Your task to perform on an android device: toggle priority inbox in the gmail app Image 0: 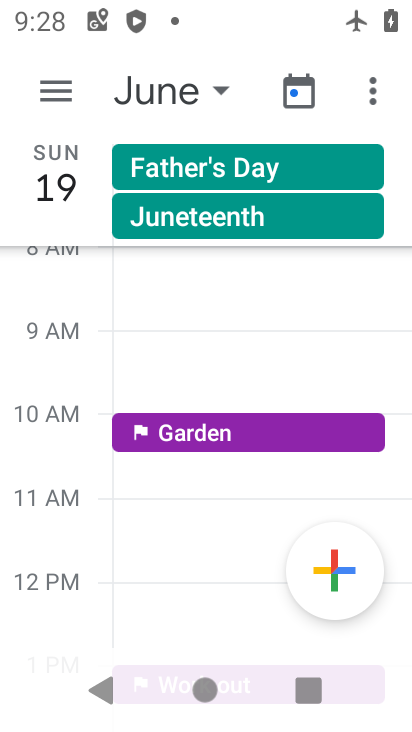
Step 0: press home button
Your task to perform on an android device: toggle priority inbox in the gmail app Image 1: 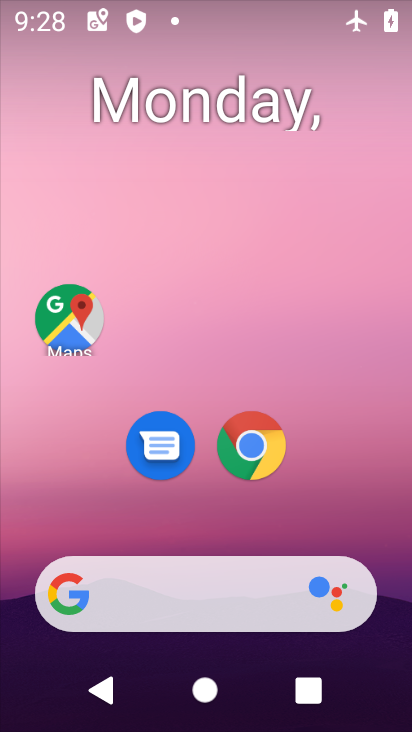
Step 1: drag from (256, 698) to (277, 28)
Your task to perform on an android device: toggle priority inbox in the gmail app Image 2: 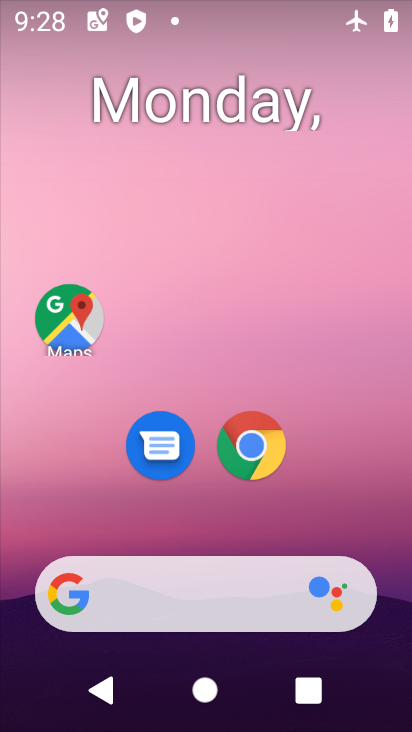
Step 2: drag from (300, 664) to (282, 148)
Your task to perform on an android device: toggle priority inbox in the gmail app Image 3: 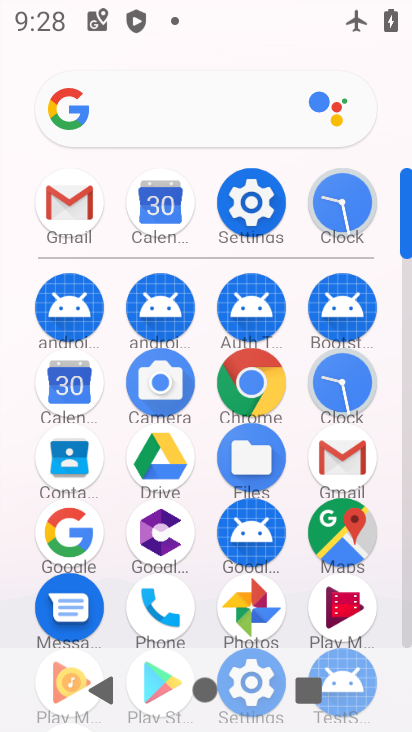
Step 3: click (76, 203)
Your task to perform on an android device: toggle priority inbox in the gmail app Image 4: 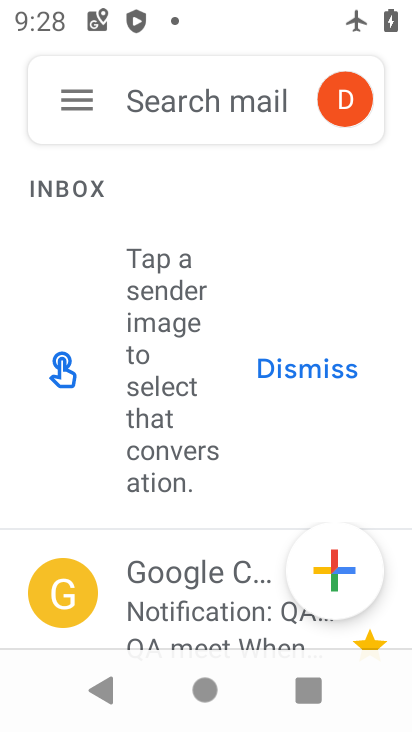
Step 4: click (84, 104)
Your task to perform on an android device: toggle priority inbox in the gmail app Image 5: 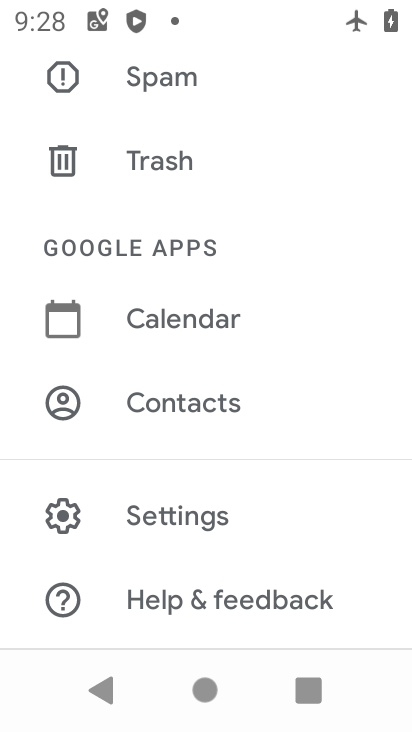
Step 5: click (223, 522)
Your task to perform on an android device: toggle priority inbox in the gmail app Image 6: 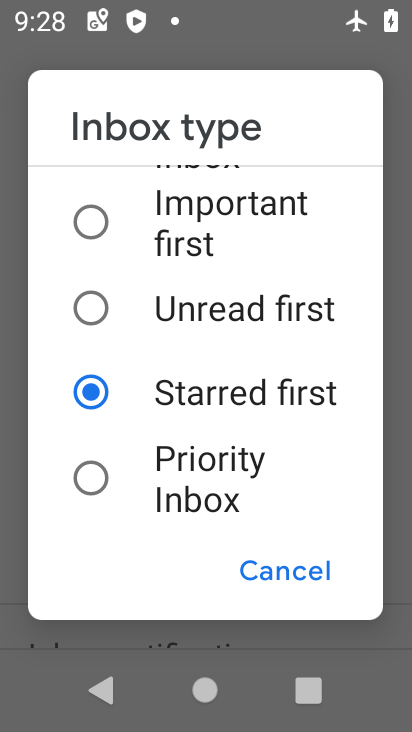
Step 6: drag from (191, 269) to (279, 728)
Your task to perform on an android device: toggle priority inbox in the gmail app Image 7: 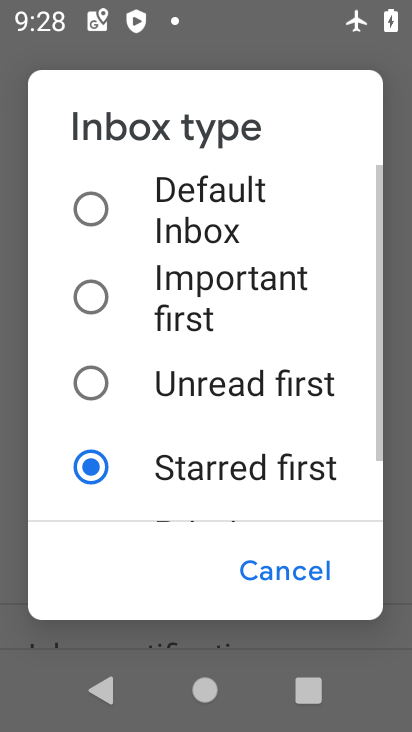
Step 7: drag from (207, 472) to (300, 4)
Your task to perform on an android device: toggle priority inbox in the gmail app Image 8: 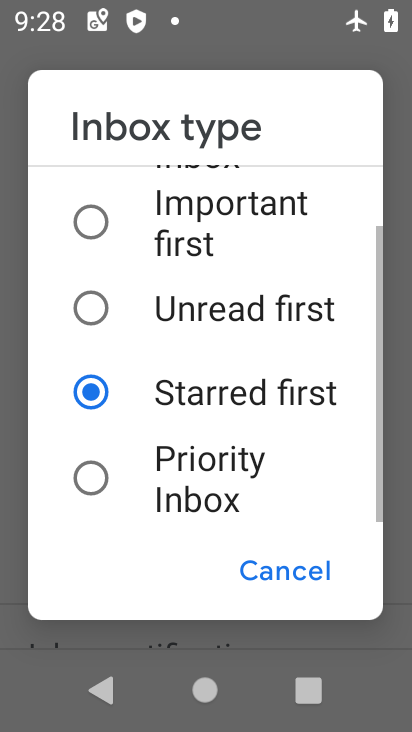
Step 8: click (81, 482)
Your task to perform on an android device: toggle priority inbox in the gmail app Image 9: 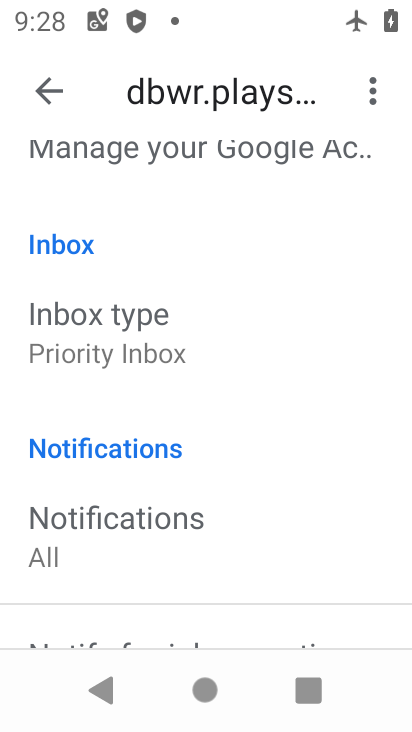
Step 9: task complete